Your task to perform on an android device: Open eBay Image 0: 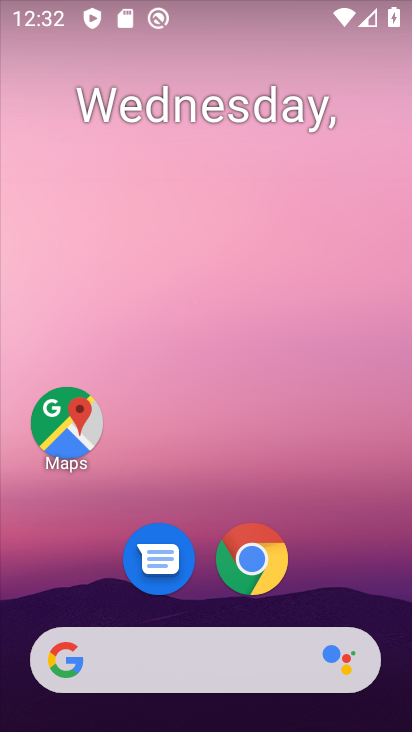
Step 0: click (252, 550)
Your task to perform on an android device: Open eBay Image 1: 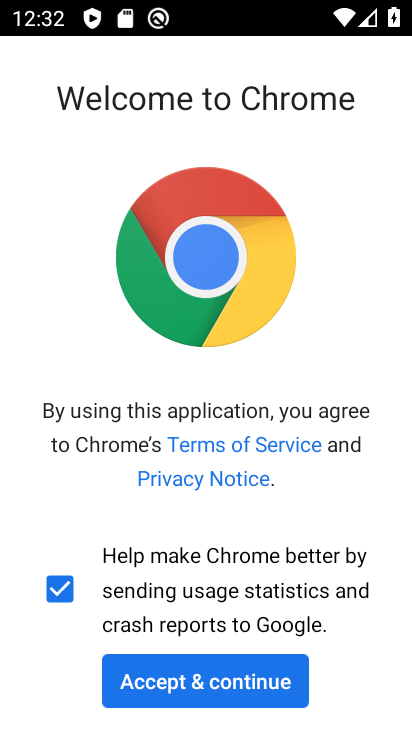
Step 1: click (194, 678)
Your task to perform on an android device: Open eBay Image 2: 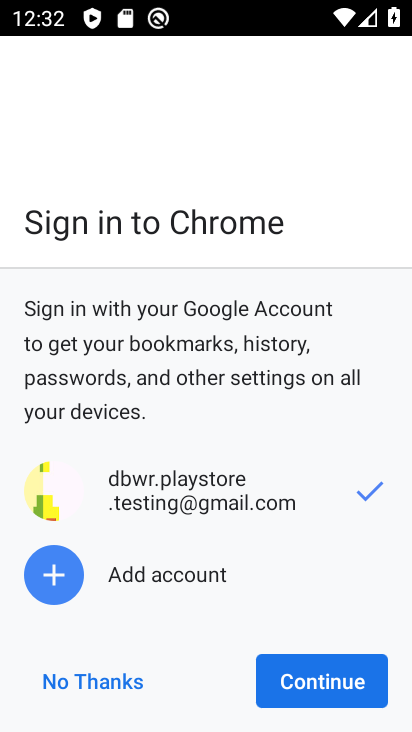
Step 2: click (341, 686)
Your task to perform on an android device: Open eBay Image 3: 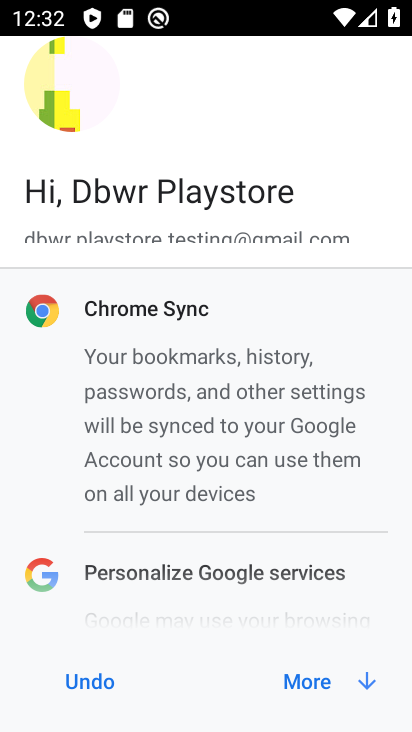
Step 3: click (341, 686)
Your task to perform on an android device: Open eBay Image 4: 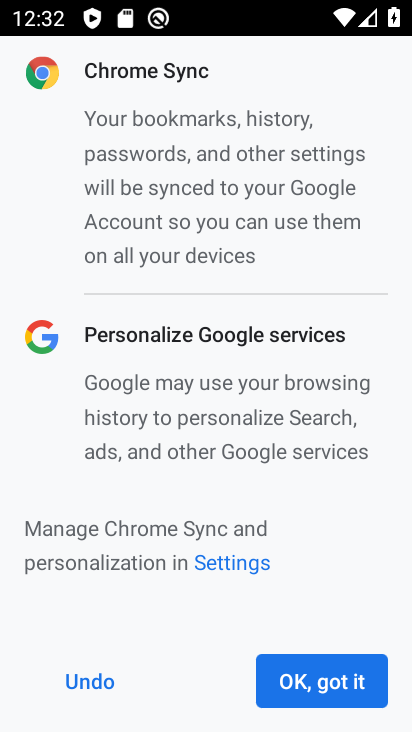
Step 4: click (341, 686)
Your task to perform on an android device: Open eBay Image 5: 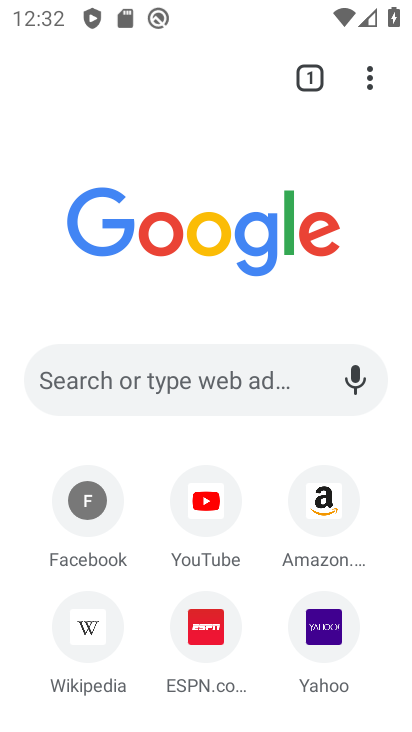
Step 5: drag from (252, 649) to (227, 307)
Your task to perform on an android device: Open eBay Image 6: 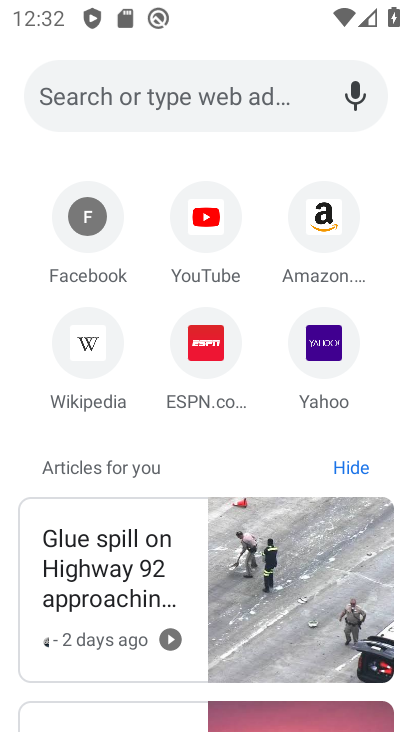
Step 6: click (268, 103)
Your task to perform on an android device: Open eBay Image 7: 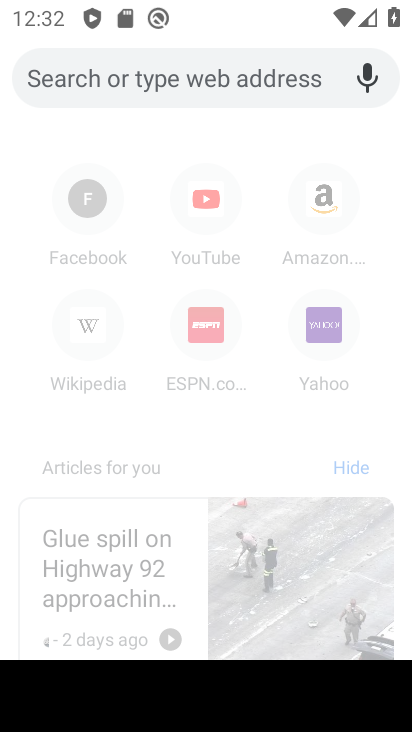
Step 7: type "ebay"
Your task to perform on an android device: Open eBay Image 8: 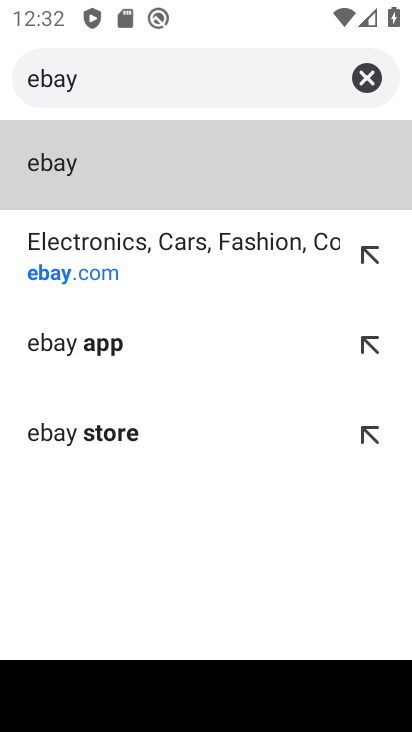
Step 8: click (88, 261)
Your task to perform on an android device: Open eBay Image 9: 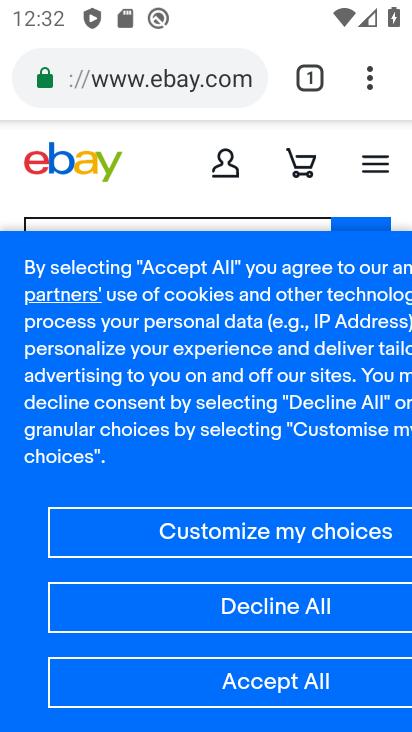
Step 9: task complete